Your task to perform on an android device: Open Maps and search for coffee Image 0: 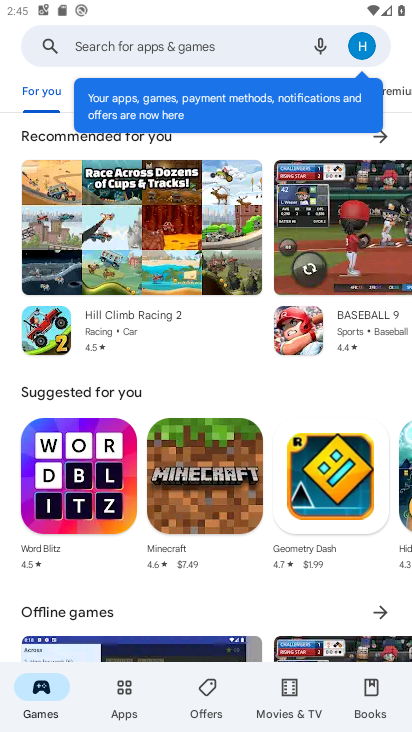
Step 0: press home button
Your task to perform on an android device: Open Maps and search for coffee Image 1: 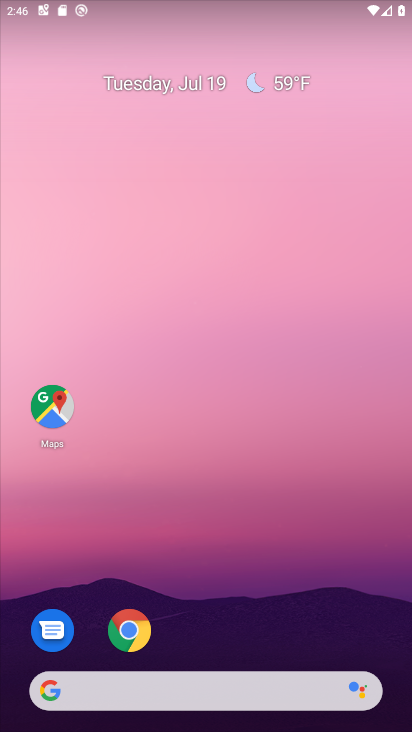
Step 1: click (50, 405)
Your task to perform on an android device: Open Maps and search for coffee Image 2: 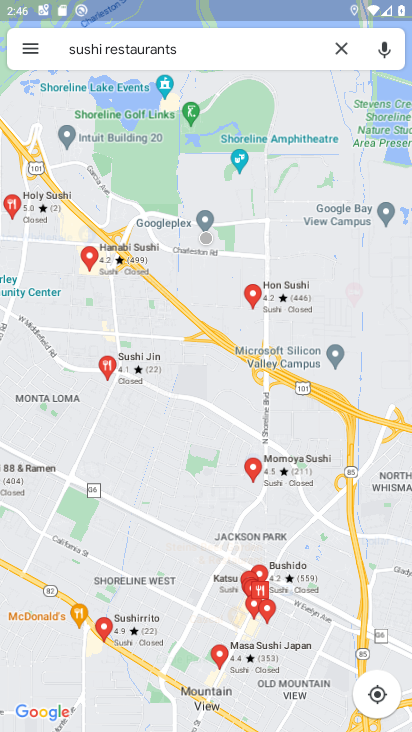
Step 2: click (246, 47)
Your task to perform on an android device: Open Maps and search for coffee Image 3: 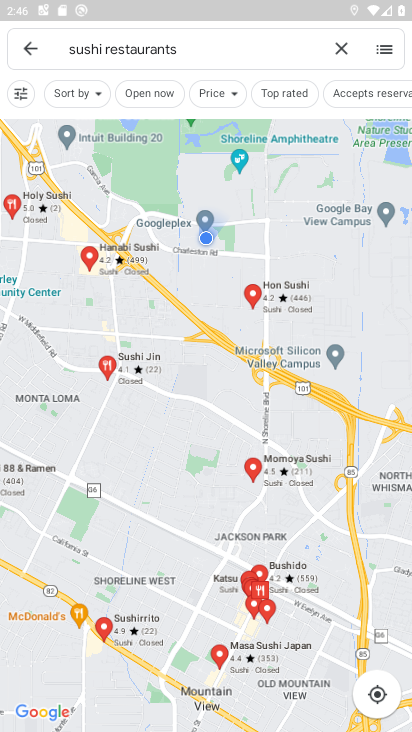
Step 3: click (338, 45)
Your task to perform on an android device: Open Maps and search for coffee Image 4: 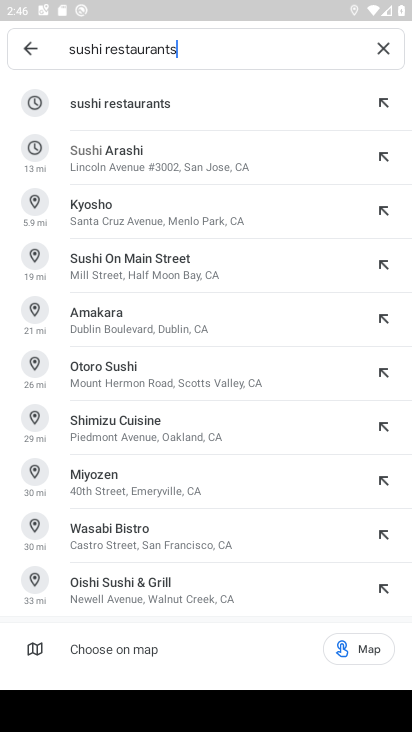
Step 4: click (387, 50)
Your task to perform on an android device: Open Maps and search for coffee Image 5: 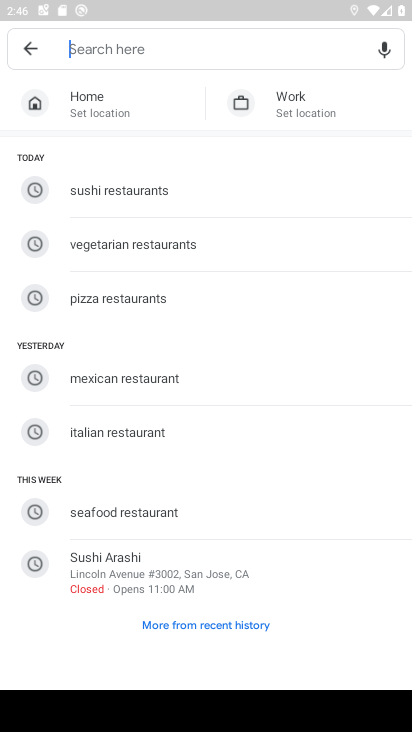
Step 5: type "coffee"
Your task to perform on an android device: Open Maps and search for coffee Image 6: 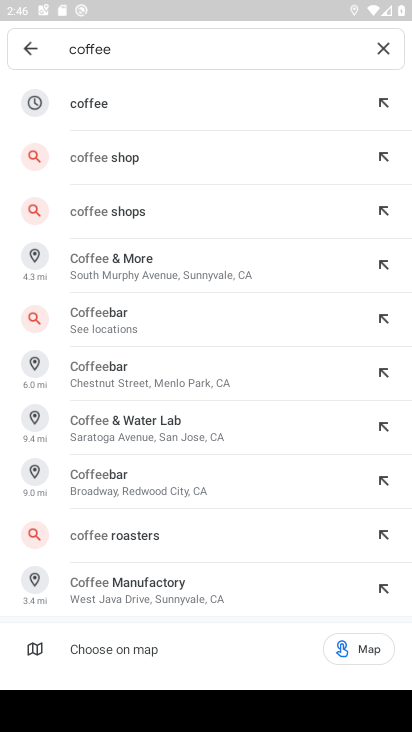
Step 6: click (84, 106)
Your task to perform on an android device: Open Maps and search for coffee Image 7: 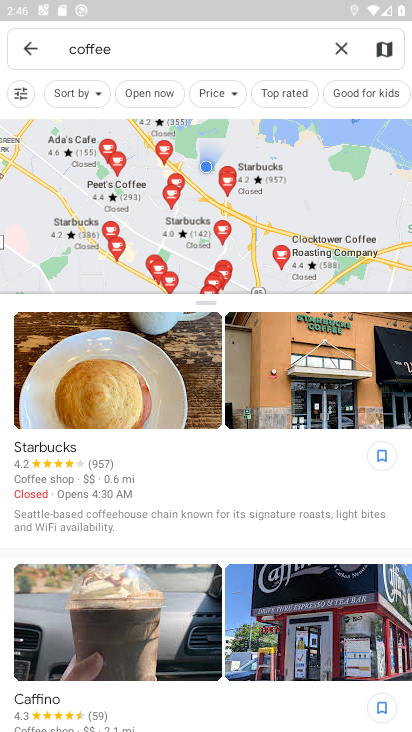
Step 7: task complete